Your task to perform on an android device: Do I have any events tomorrow? Image 0: 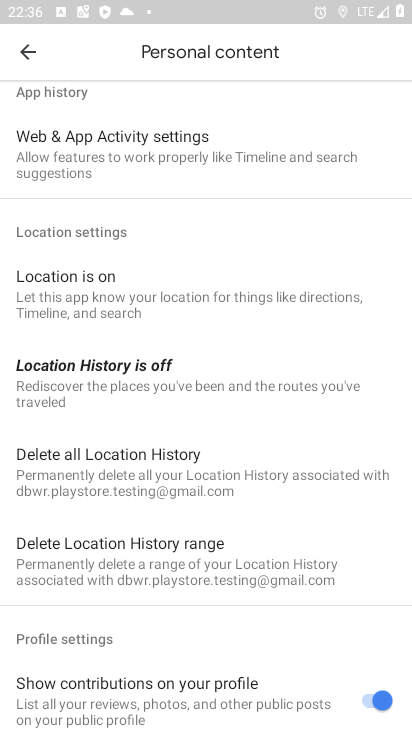
Step 0: press home button
Your task to perform on an android device: Do I have any events tomorrow? Image 1: 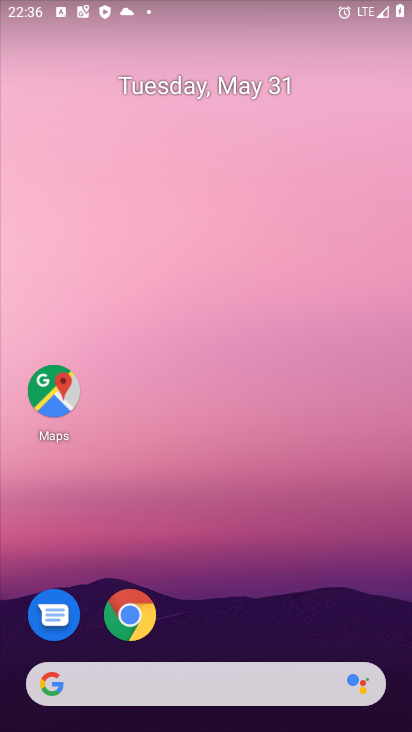
Step 1: drag from (361, 628) to (314, 200)
Your task to perform on an android device: Do I have any events tomorrow? Image 2: 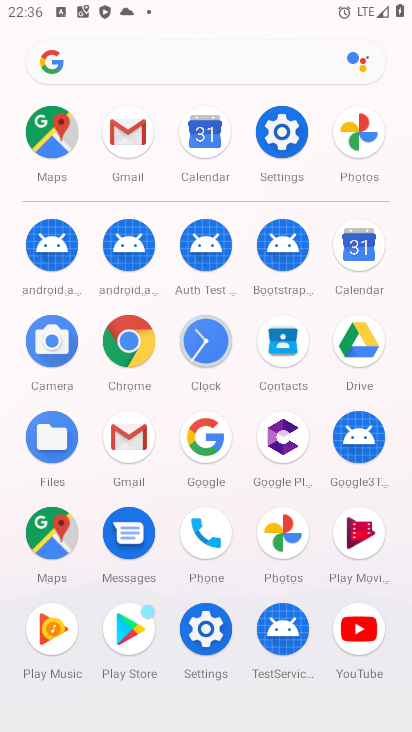
Step 2: click (361, 242)
Your task to perform on an android device: Do I have any events tomorrow? Image 3: 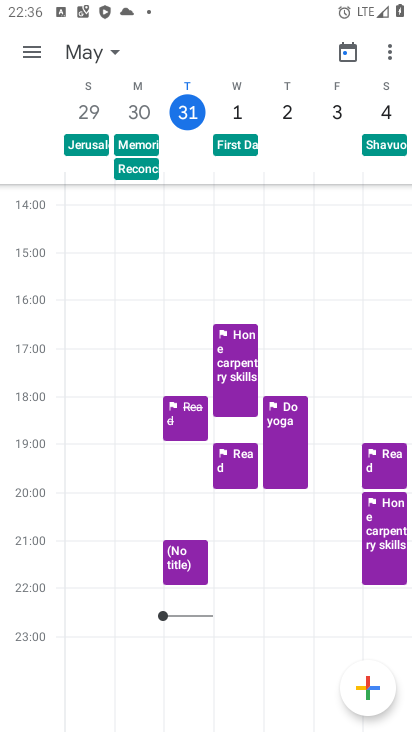
Step 3: click (30, 53)
Your task to perform on an android device: Do I have any events tomorrow? Image 4: 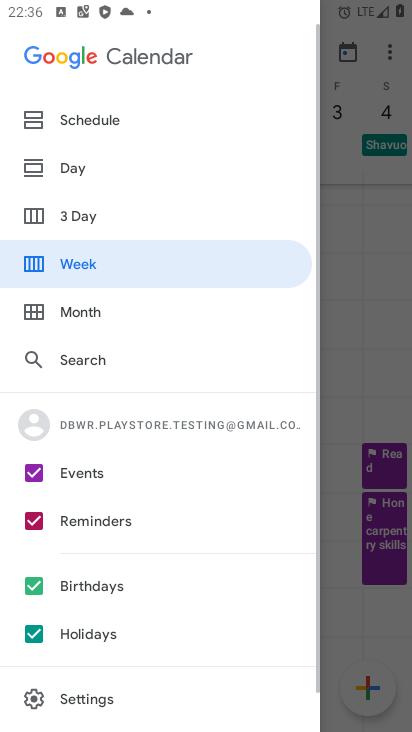
Step 4: click (88, 166)
Your task to perform on an android device: Do I have any events tomorrow? Image 5: 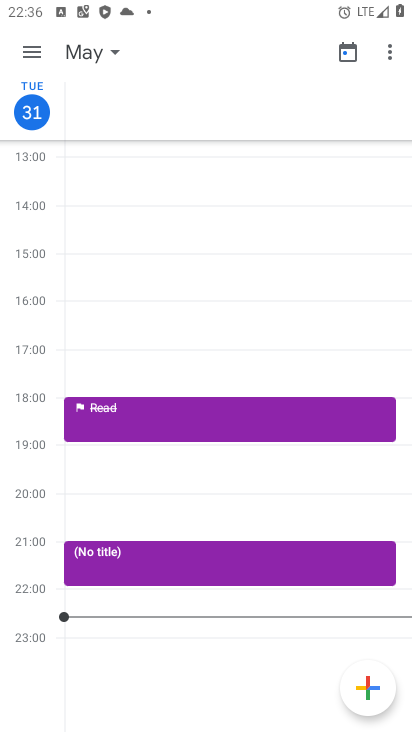
Step 5: click (116, 47)
Your task to perform on an android device: Do I have any events tomorrow? Image 6: 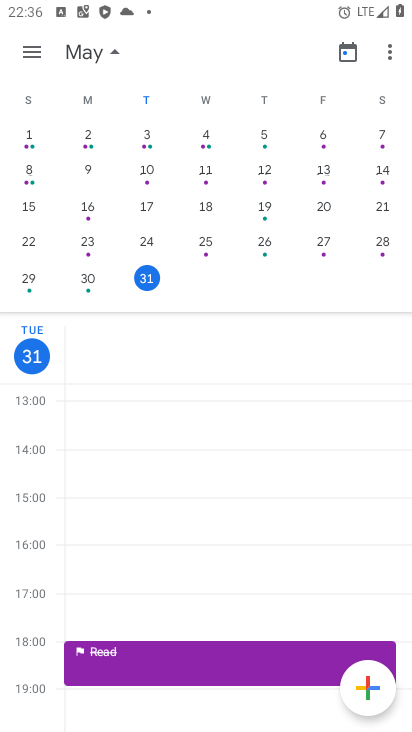
Step 6: drag from (359, 236) to (19, 177)
Your task to perform on an android device: Do I have any events tomorrow? Image 7: 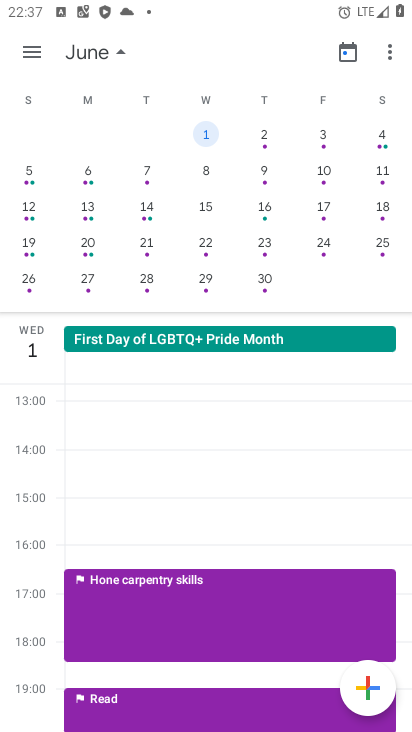
Step 7: click (207, 128)
Your task to perform on an android device: Do I have any events tomorrow? Image 8: 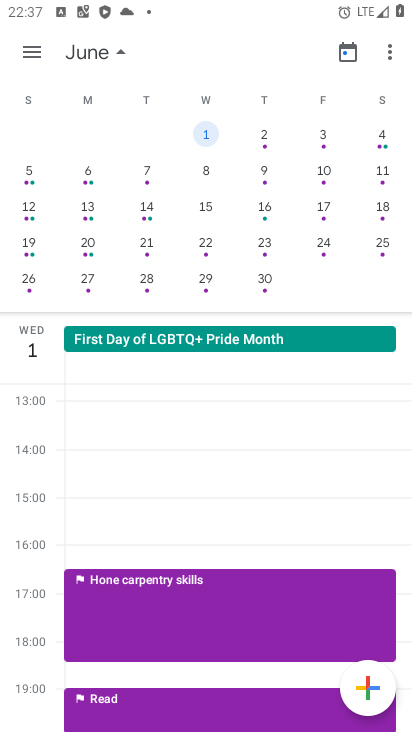
Step 8: task complete